Your task to perform on an android device: turn off translation in the chrome app Image 0: 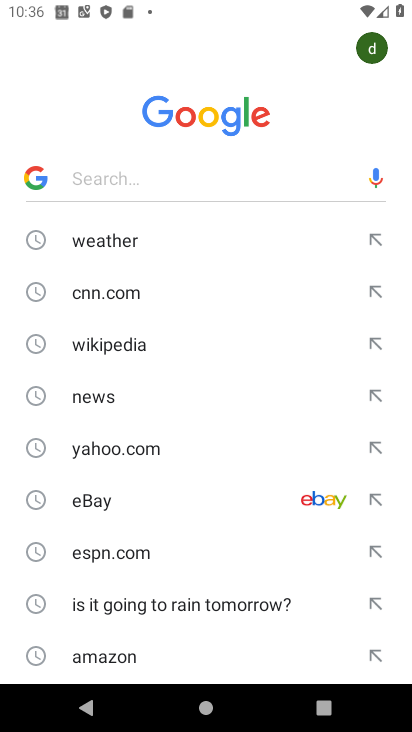
Step 0: press home button
Your task to perform on an android device: turn off translation in the chrome app Image 1: 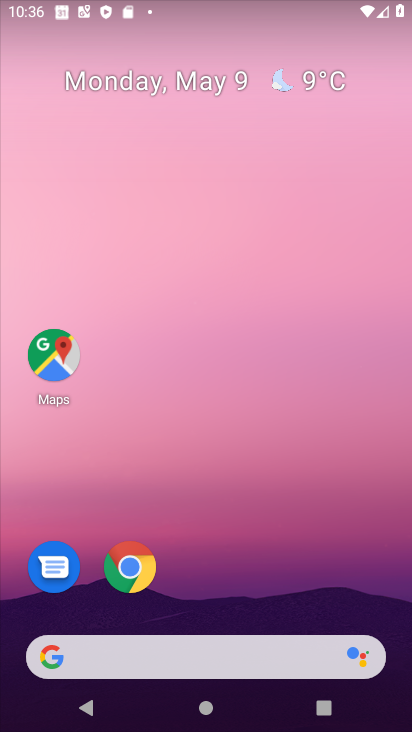
Step 1: drag from (204, 615) to (253, 52)
Your task to perform on an android device: turn off translation in the chrome app Image 2: 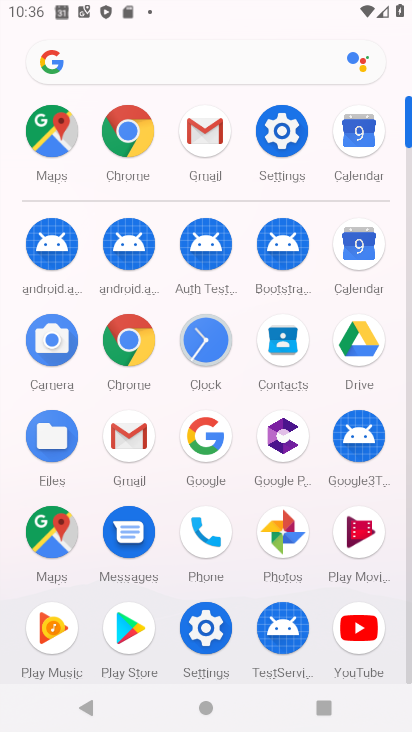
Step 2: click (128, 334)
Your task to perform on an android device: turn off translation in the chrome app Image 3: 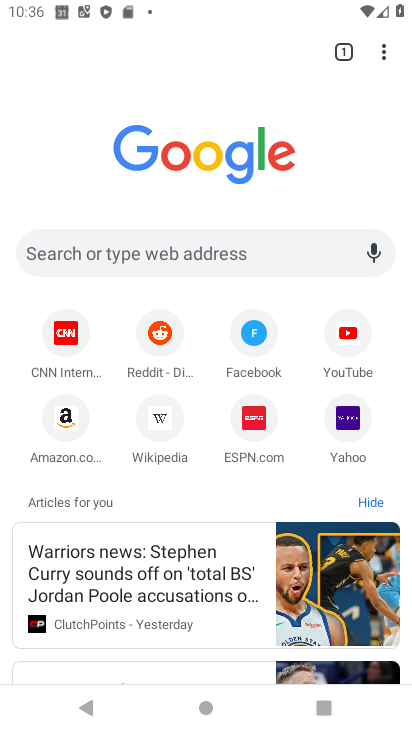
Step 3: click (381, 49)
Your task to perform on an android device: turn off translation in the chrome app Image 4: 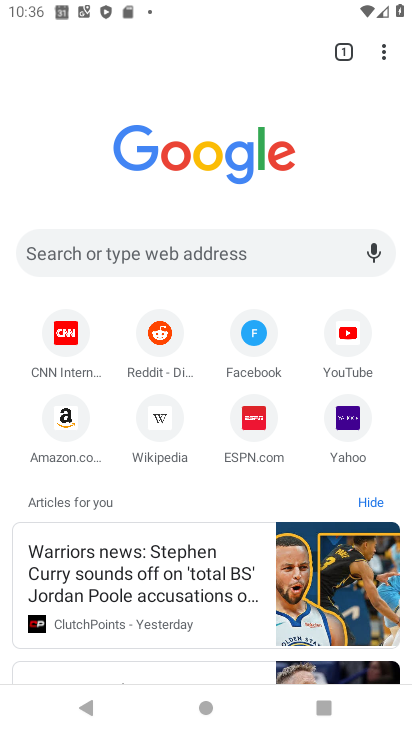
Step 4: click (384, 49)
Your task to perform on an android device: turn off translation in the chrome app Image 5: 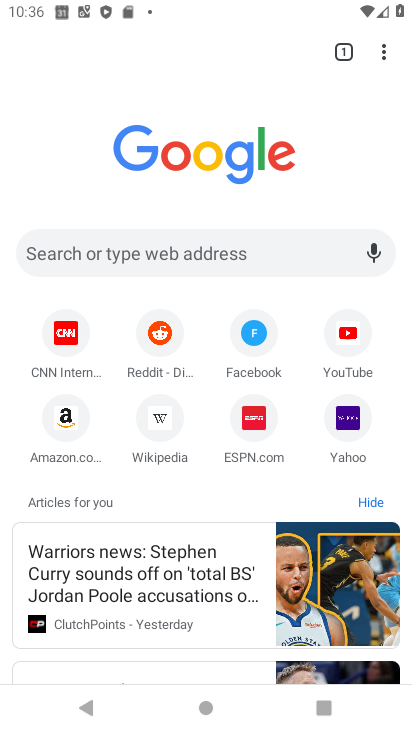
Step 5: click (388, 41)
Your task to perform on an android device: turn off translation in the chrome app Image 6: 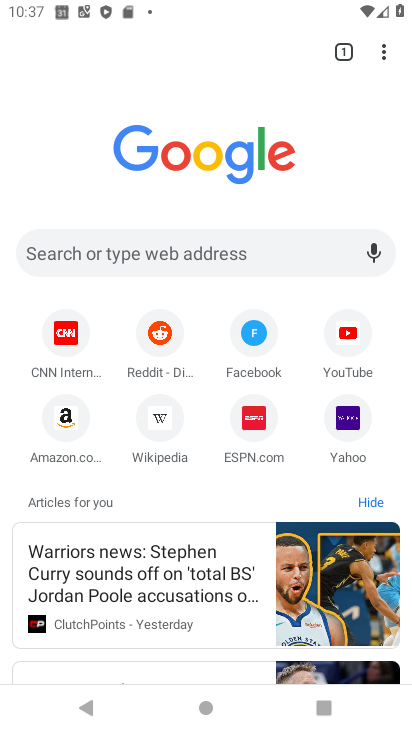
Step 6: click (382, 50)
Your task to perform on an android device: turn off translation in the chrome app Image 7: 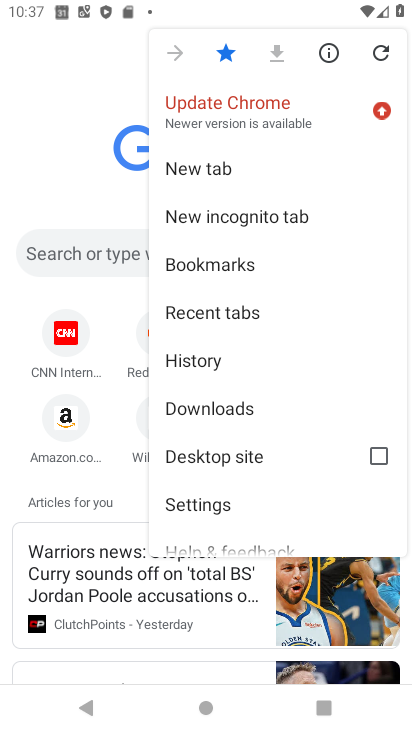
Step 7: click (239, 505)
Your task to perform on an android device: turn off translation in the chrome app Image 8: 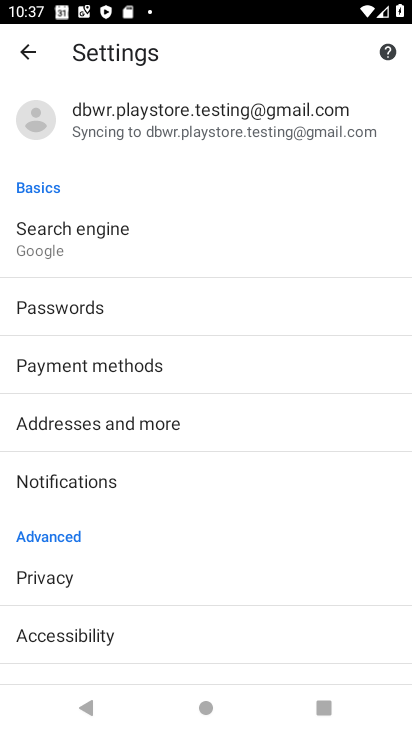
Step 8: drag from (159, 641) to (172, 176)
Your task to perform on an android device: turn off translation in the chrome app Image 9: 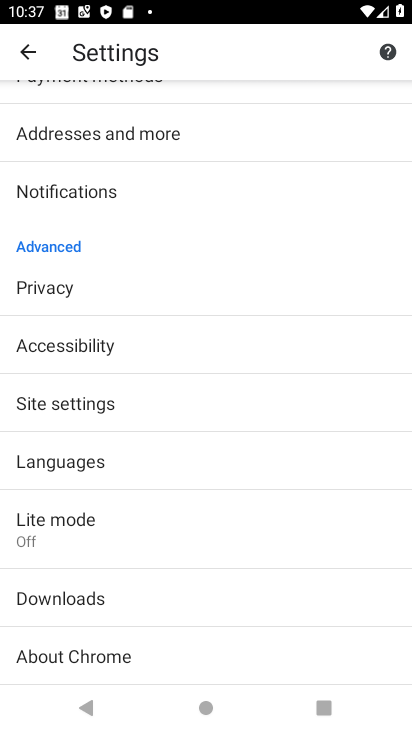
Step 9: click (125, 469)
Your task to perform on an android device: turn off translation in the chrome app Image 10: 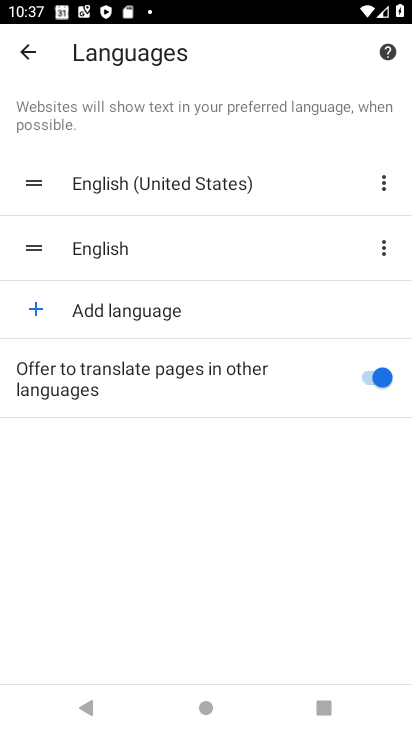
Step 10: click (376, 381)
Your task to perform on an android device: turn off translation in the chrome app Image 11: 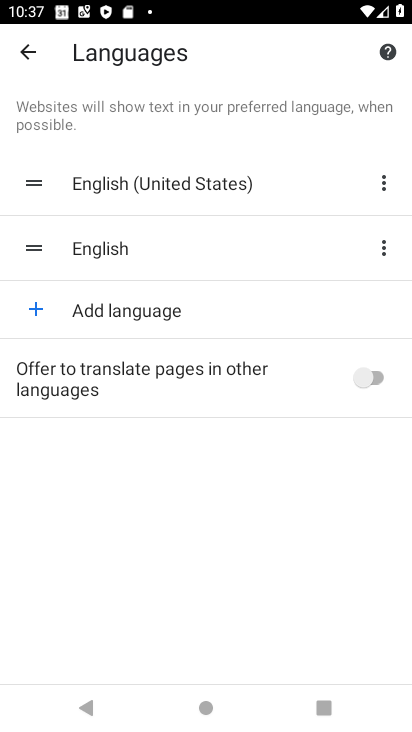
Step 11: task complete